Your task to perform on an android device: Go to accessibility settings Image 0: 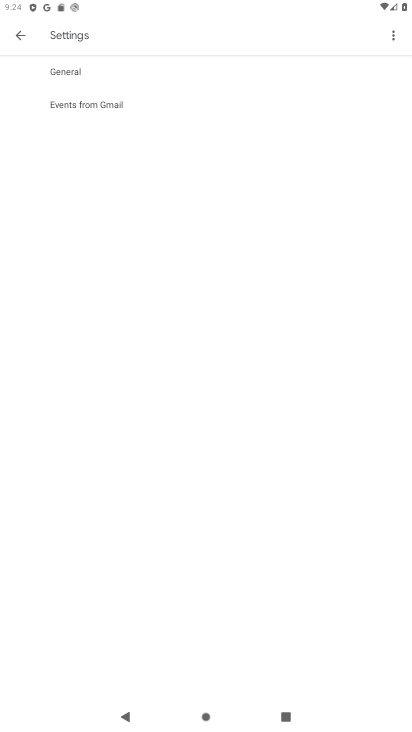
Step 0: press home button
Your task to perform on an android device: Go to accessibility settings Image 1: 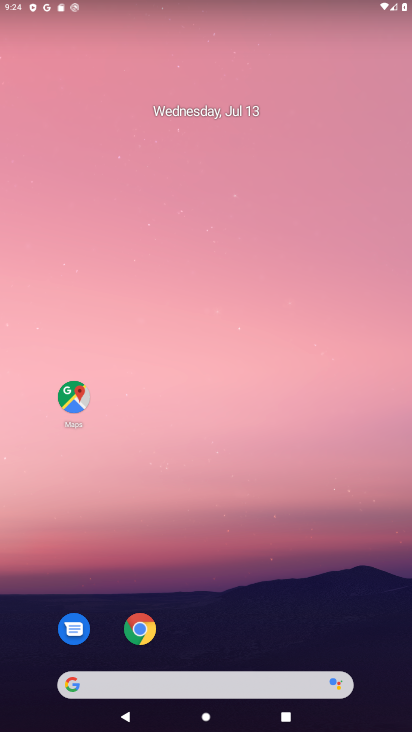
Step 1: drag from (253, 639) to (266, 145)
Your task to perform on an android device: Go to accessibility settings Image 2: 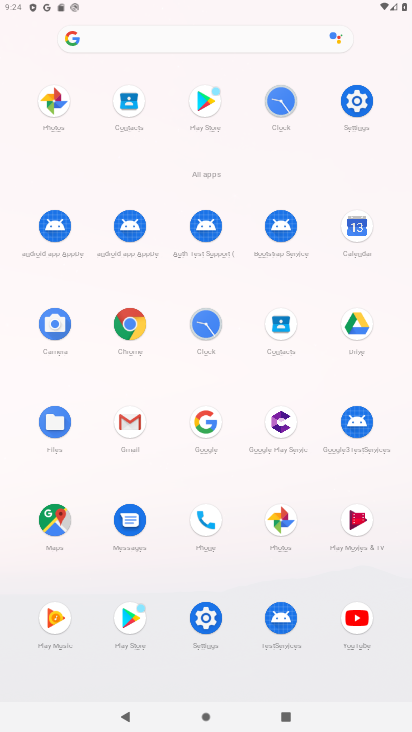
Step 2: click (367, 109)
Your task to perform on an android device: Go to accessibility settings Image 3: 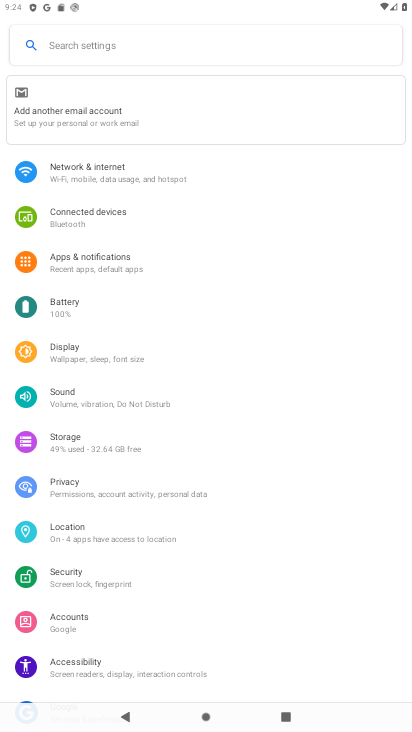
Step 3: click (90, 654)
Your task to perform on an android device: Go to accessibility settings Image 4: 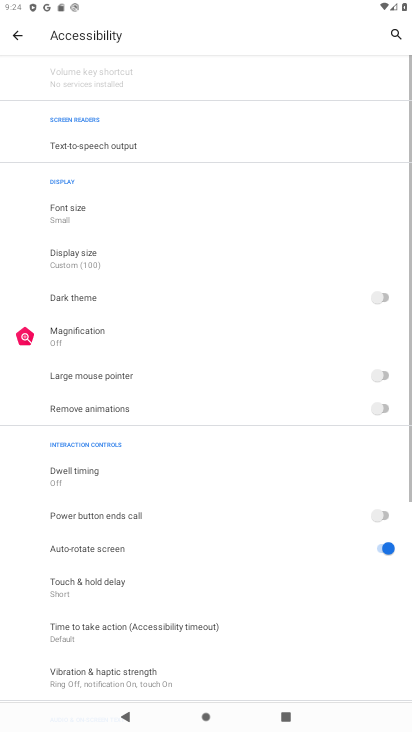
Step 4: task complete